Your task to perform on an android device: check the backup settings in the google photos Image 0: 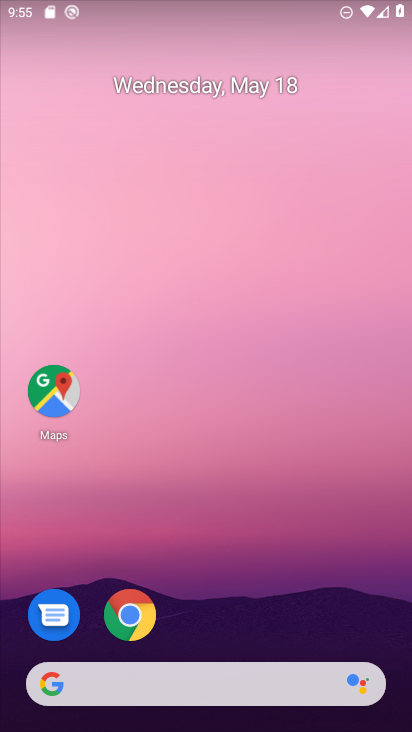
Step 0: drag from (223, 601) to (210, 115)
Your task to perform on an android device: check the backup settings in the google photos Image 1: 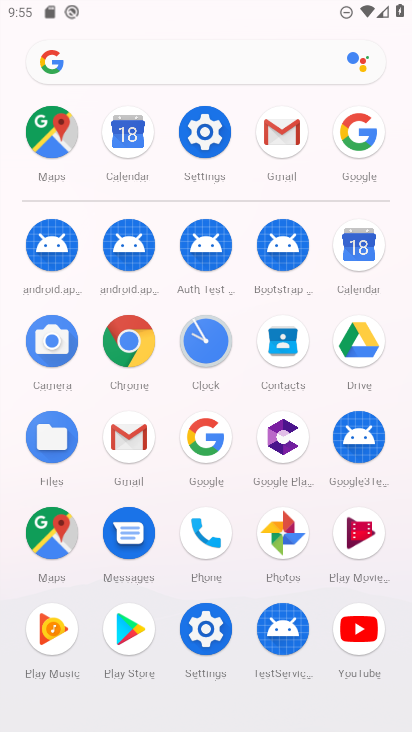
Step 1: click (287, 528)
Your task to perform on an android device: check the backup settings in the google photos Image 2: 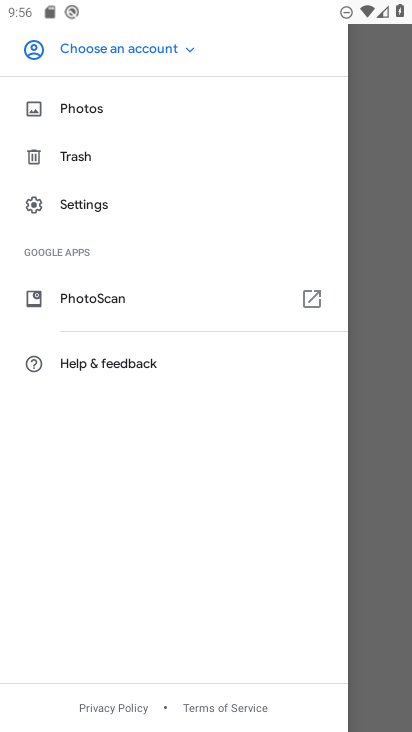
Step 2: click (105, 212)
Your task to perform on an android device: check the backup settings in the google photos Image 3: 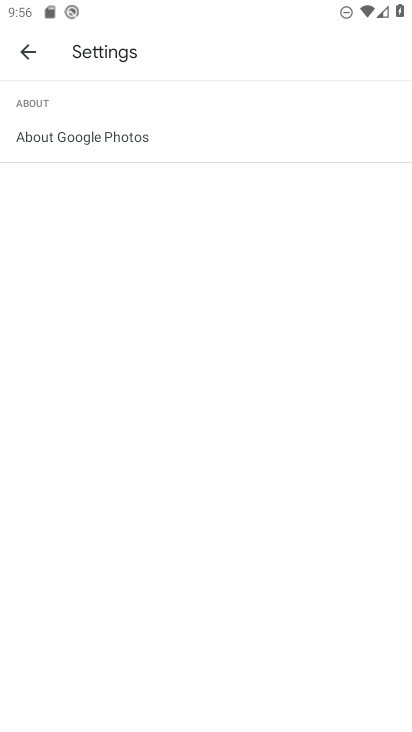
Step 3: press back button
Your task to perform on an android device: check the backup settings in the google photos Image 4: 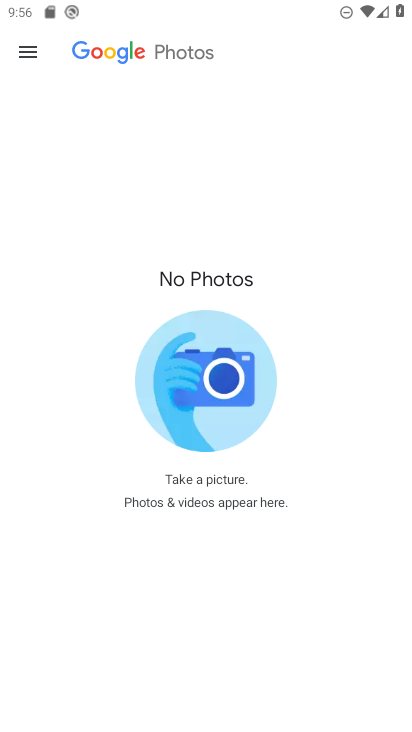
Step 4: click (53, 52)
Your task to perform on an android device: check the backup settings in the google photos Image 5: 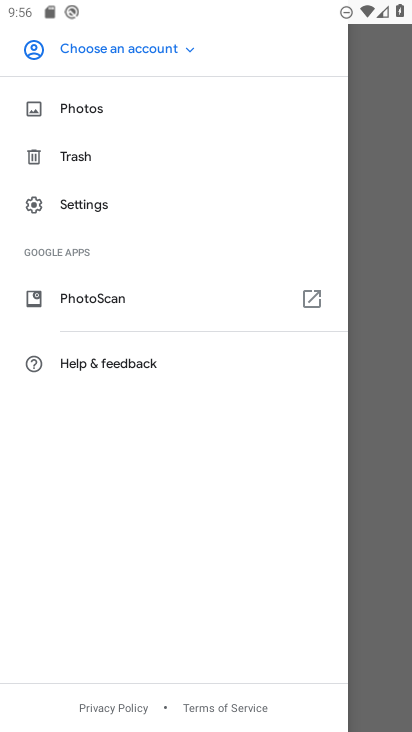
Step 5: click (91, 188)
Your task to perform on an android device: check the backup settings in the google photos Image 6: 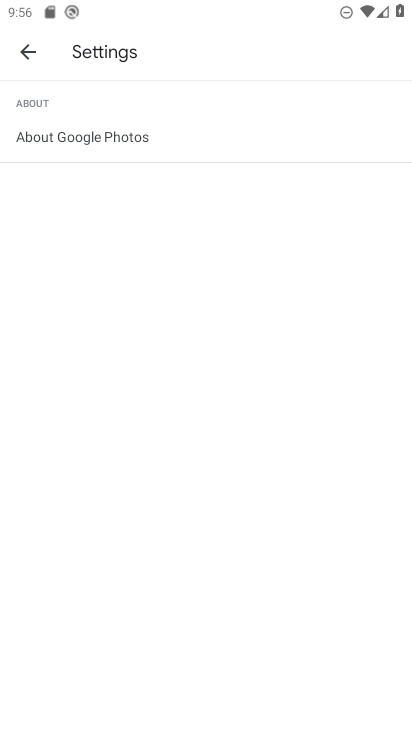
Step 6: click (93, 143)
Your task to perform on an android device: check the backup settings in the google photos Image 7: 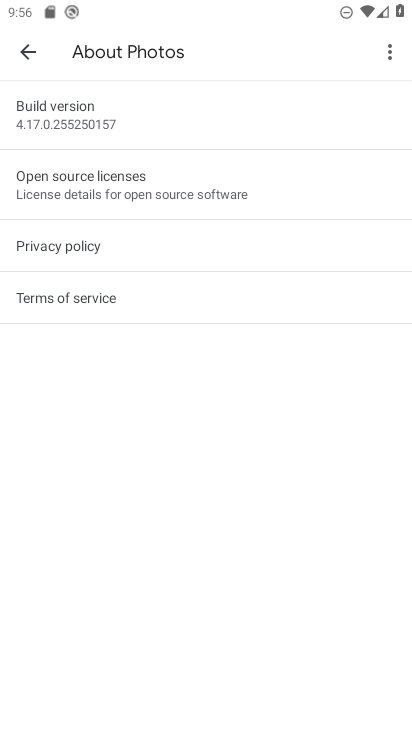
Step 7: task complete